Your task to perform on an android device: turn on the 24-hour format for clock Image 0: 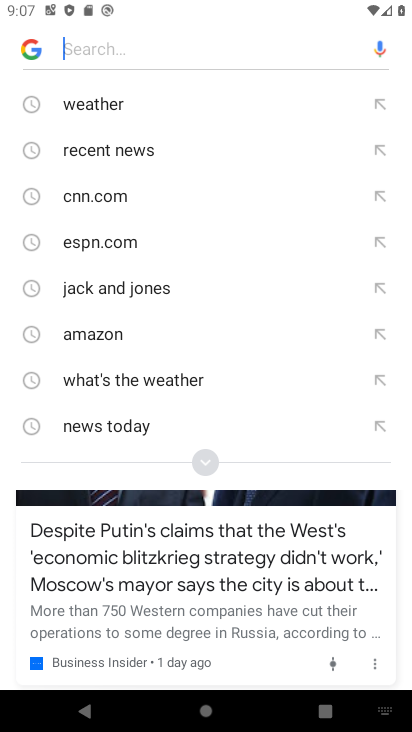
Step 0: press home button
Your task to perform on an android device: turn on the 24-hour format for clock Image 1: 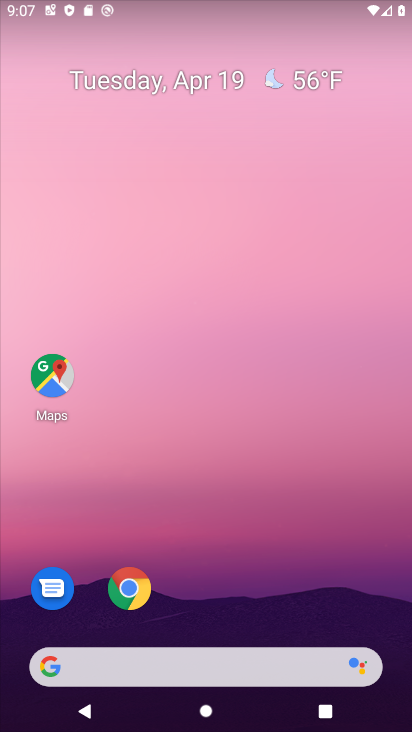
Step 1: drag from (241, 470) to (300, 21)
Your task to perform on an android device: turn on the 24-hour format for clock Image 2: 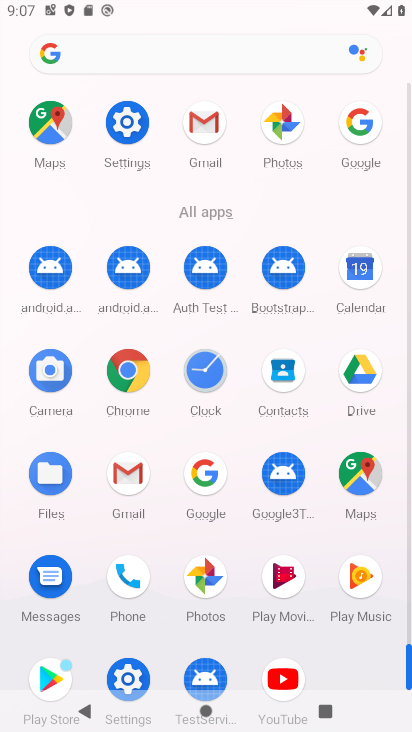
Step 2: click (207, 371)
Your task to perform on an android device: turn on the 24-hour format for clock Image 3: 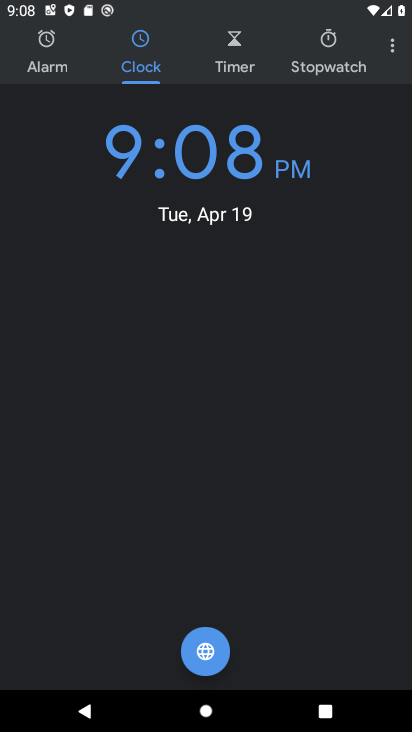
Step 3: click (390, 46)
Your task to perform on an android device: turn on the 24-hour format for clock Image 4: 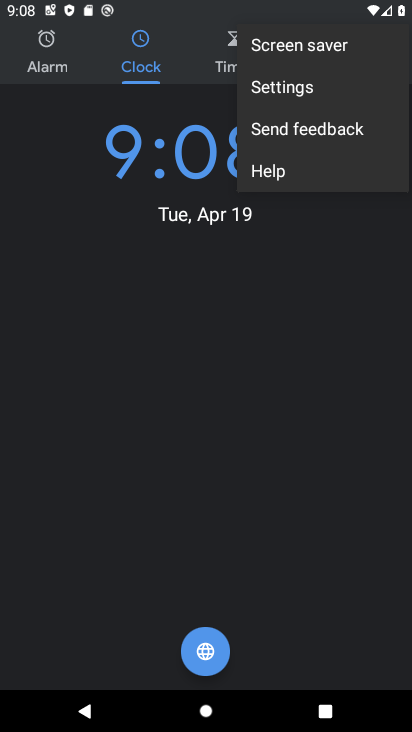
Step 4: click (306, 88)
Your task to perform on an android device: turn on the 24-hour format for clock Image 5: 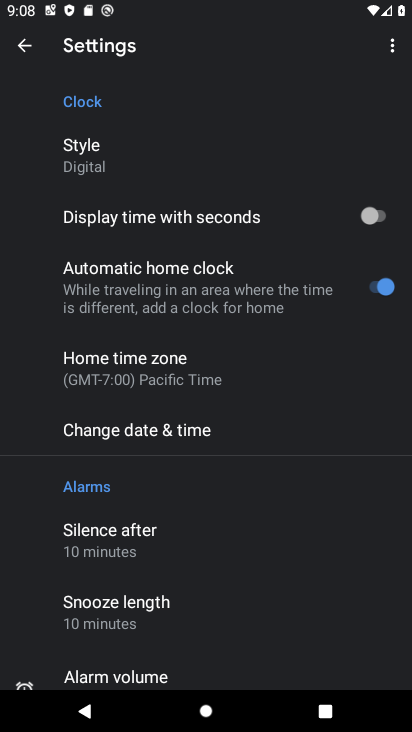
Step 5: click (189, 434)
Your task to perform on an android device: turn on the 24-hour format for clock Image 6: 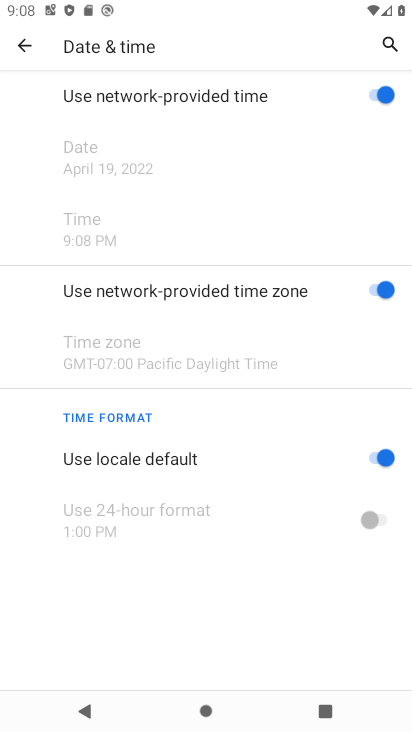
Step 6: click (380, 456)
Your task to perform on an android device: turn on the 24-hour format for clock Image 7: 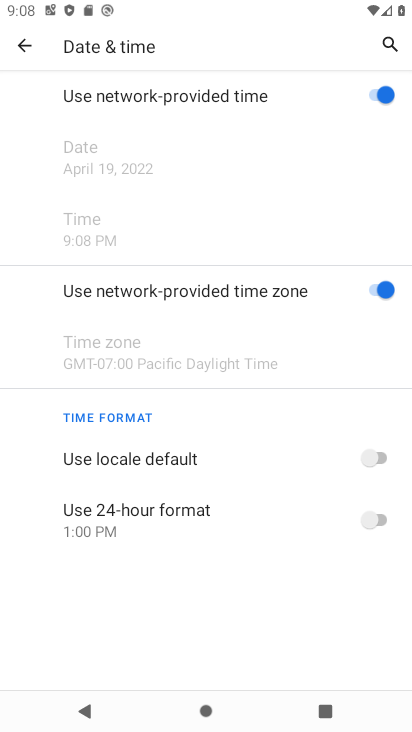
Step 7: click (381, 526)
Your task to perform on an android device: turn on the 24-hour format for clock Image 8: 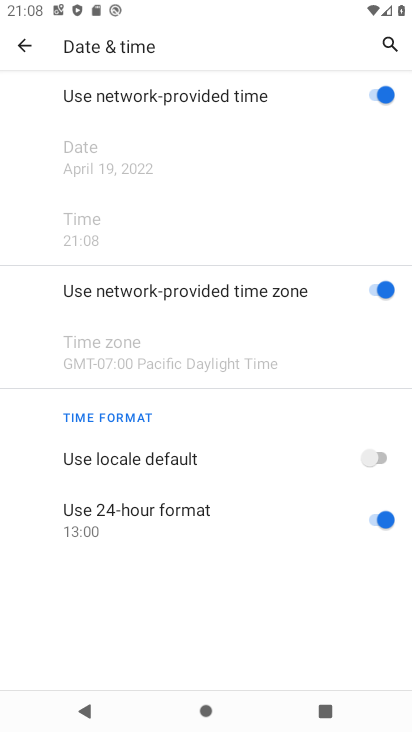
Step 8: task complete